Your task to perform on an android device: Open the calendar and show me this week's events? Image 0: 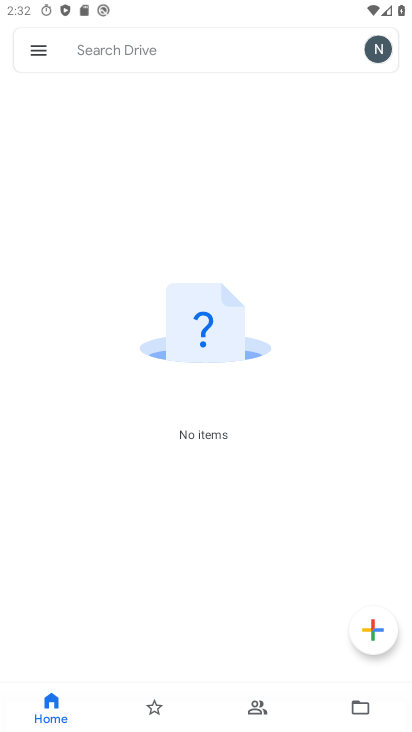
Step 0: press home button
Your task to perform on an android device: Open the calendar and show me this week's events? Image 1: 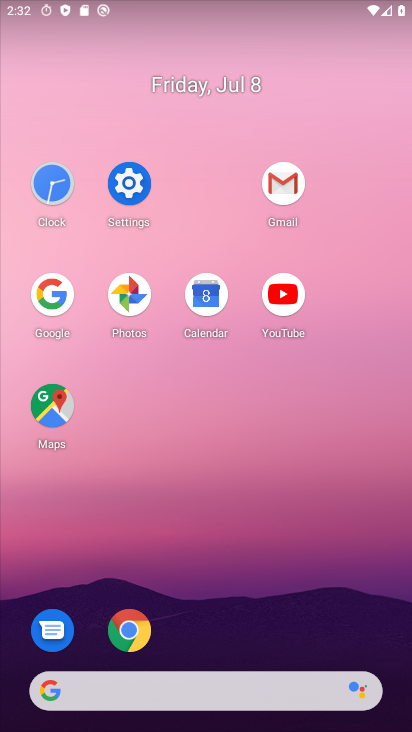
Step 1: click (219, 289)
Your task to perform on an android device: Open the calendar and show me this week's events? Image 2: 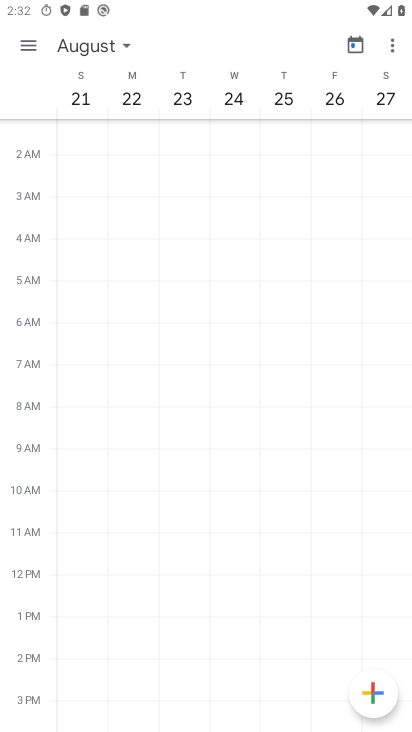
Step 2: click (106, 38)
Your task to perform on an android device: Open the calendar and show me this week's events? Image 3: 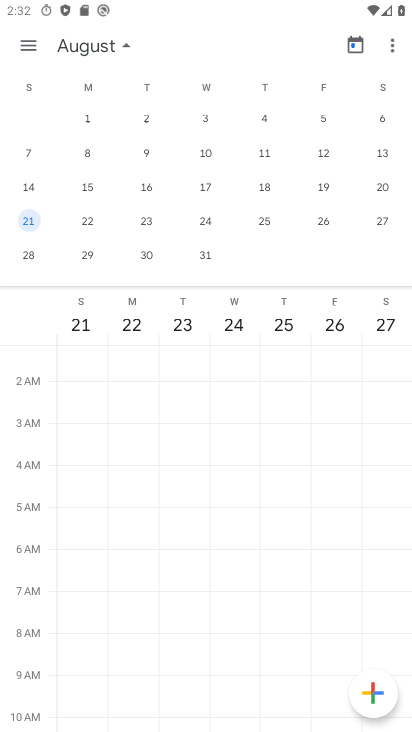
Step 3: drag from (69, 169) to (373, 146)
Your task to perform on an android device: Open the calendar and show me this week's events? Image 4: 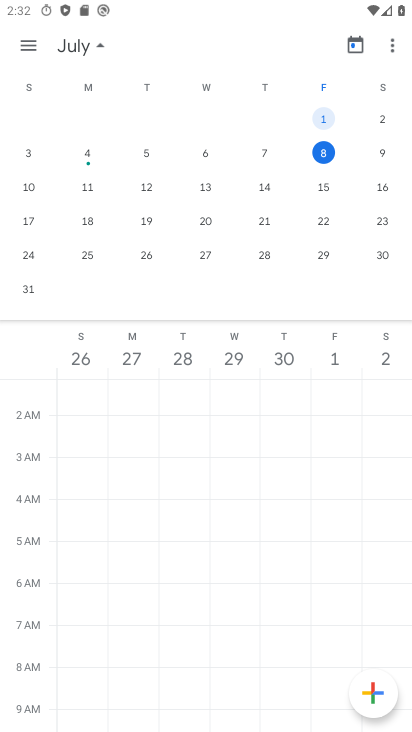
Step 4: click (320, 162)
Your task to perform on an android device: Open the calendar and show me this week's events? Image 5: 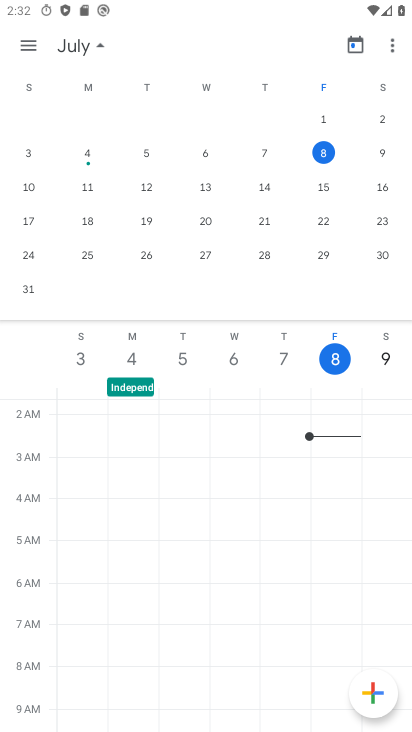
Step 5: task complete